Your task to perform on an android device: Open my contact list Image 0: 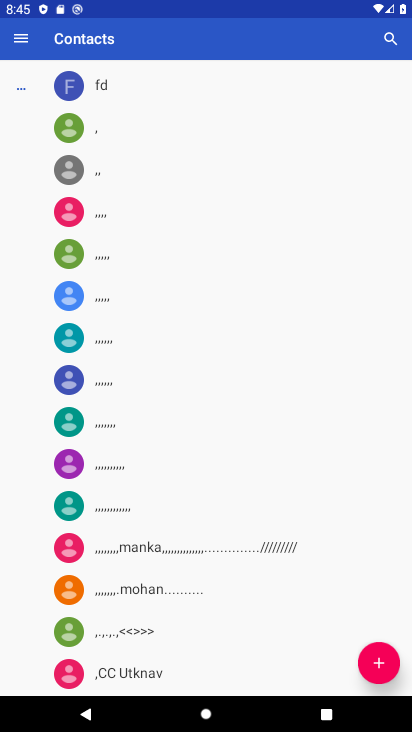
Step 0: task complete